Your task to perform on an android device: turn on airplane mode Image 0: 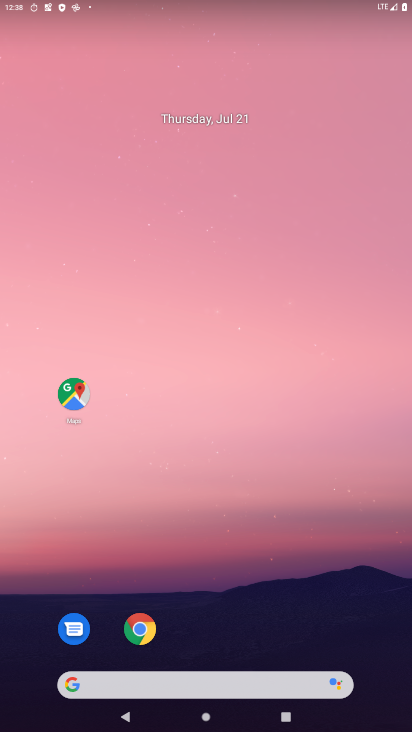
Step 0: drag from (152, 678) to (207, 76)
Your task to perform on an android device: turn on airplane mode Image 1: 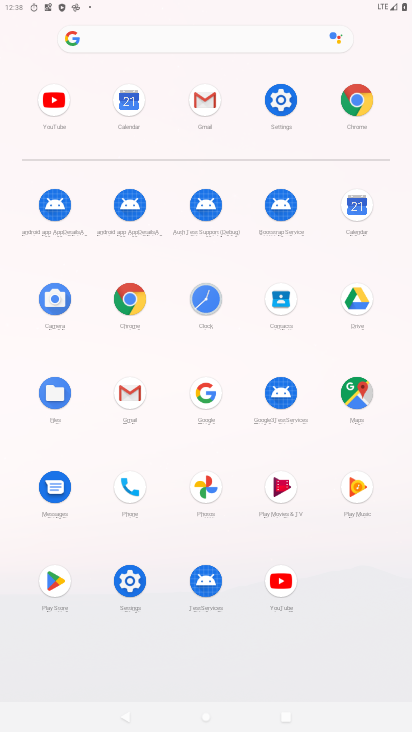
Step 1: click (267, 93)
Your task to perform on an android device: turn on airplane mode Image 2: 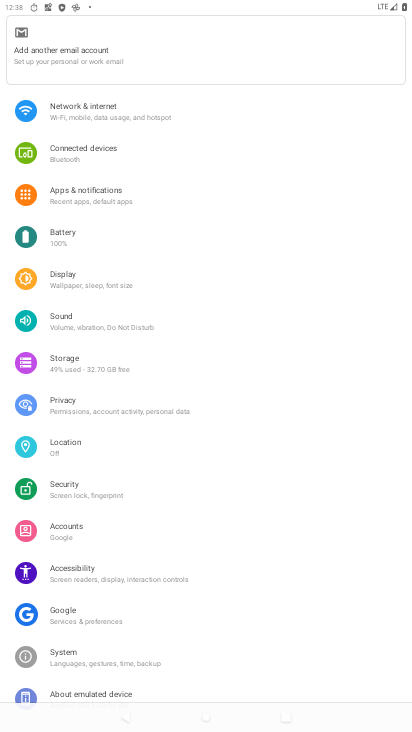
Step 2: click (110, 119)
Your task to perform on an android device: turn on airplane mode Image 3: 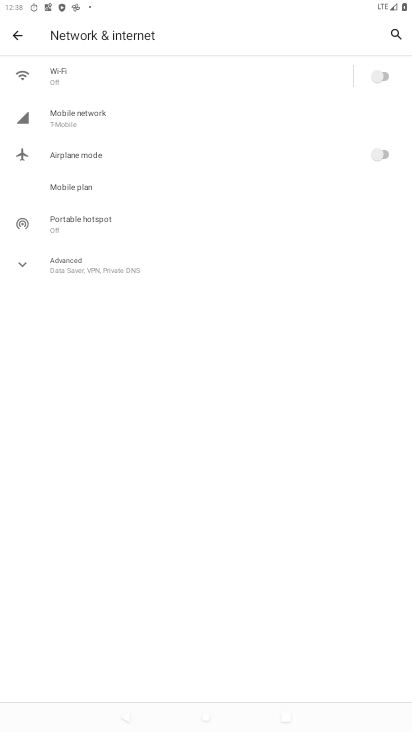
Step 3: click (174, 161)
Your task to perform on an android device: turn on airplane mode Image 4: 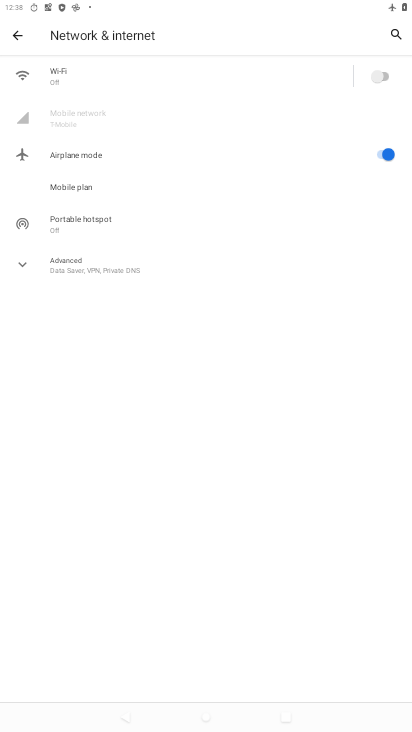
Step 4: task complete